Your task to perform on an android device: Show me the alarms in the clock app Image 0: 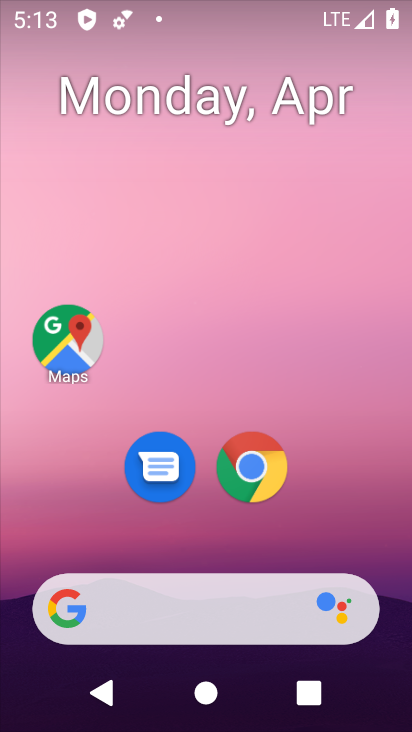
Step 0: drag from (276, 580) to (307, 11)
Your task to perform on an android device: Show me the alarms in the clock app Image 1: 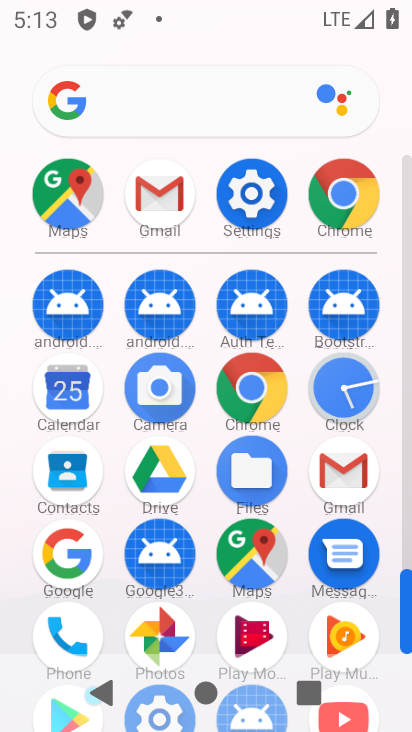
Step 1: click (343, 389)
Your task to perform on an android device: Show me the alarms in the clock app Image 2: 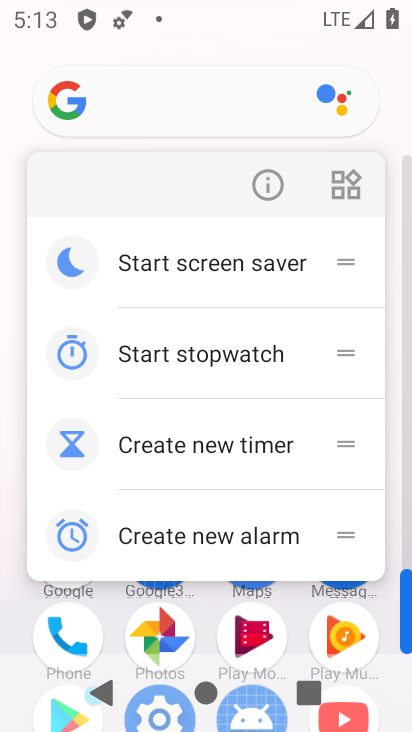
Step 2: click (302, 592)
Your task to perform on an android device: Show me the alarms in the clock app Image 3: 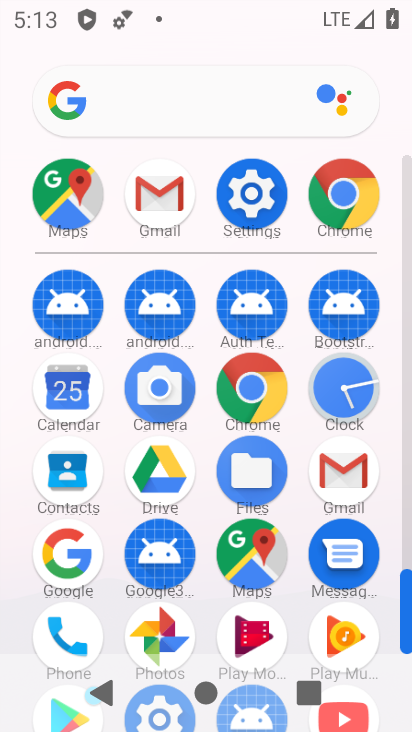
Step 3: click (357, 387)
Your task to perform on an android device: Show me the alarms in the clock app Image 4: 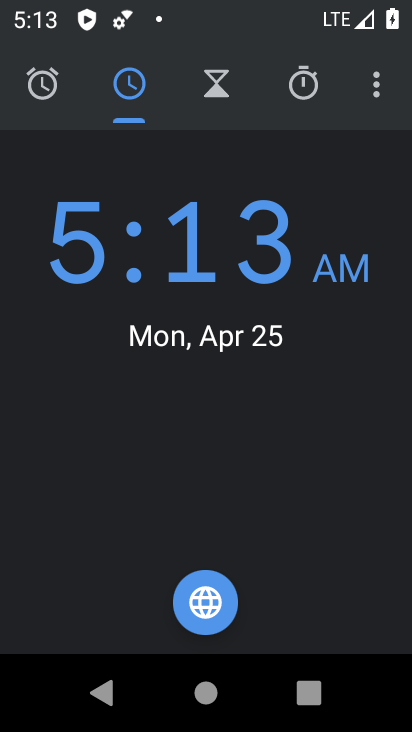
Step 4: click (26, 89)
Your task to perform on an android device: Show me the alarms in the clock app Image 5: 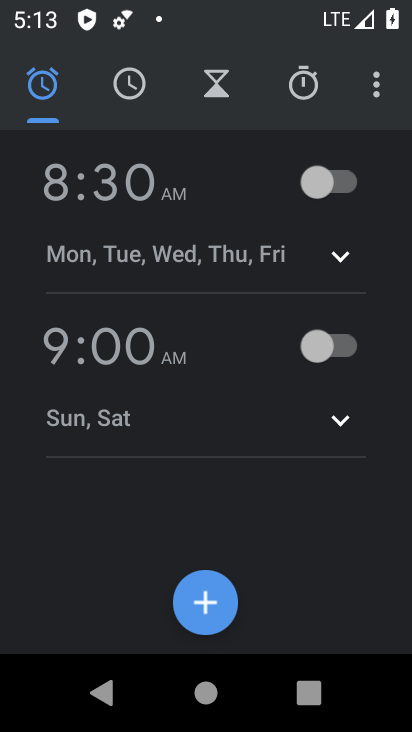
Step 5: click (345, 183)
Your task to perform on an android device: Show me the alarms in the clock app Image 6: 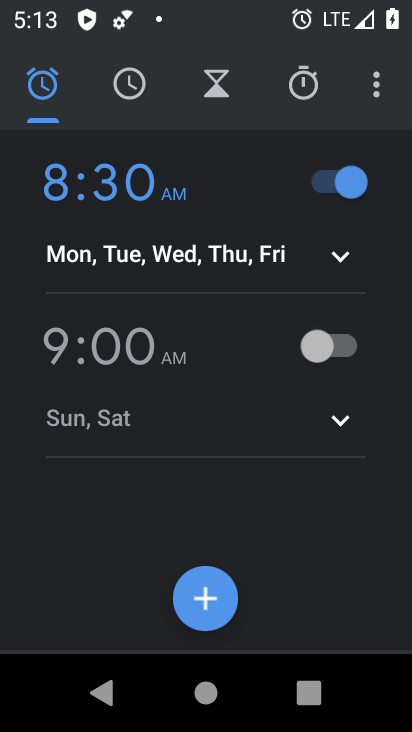
Step 6: task complete